Your task to perform on an android device: turn off sleep mode Image 0: 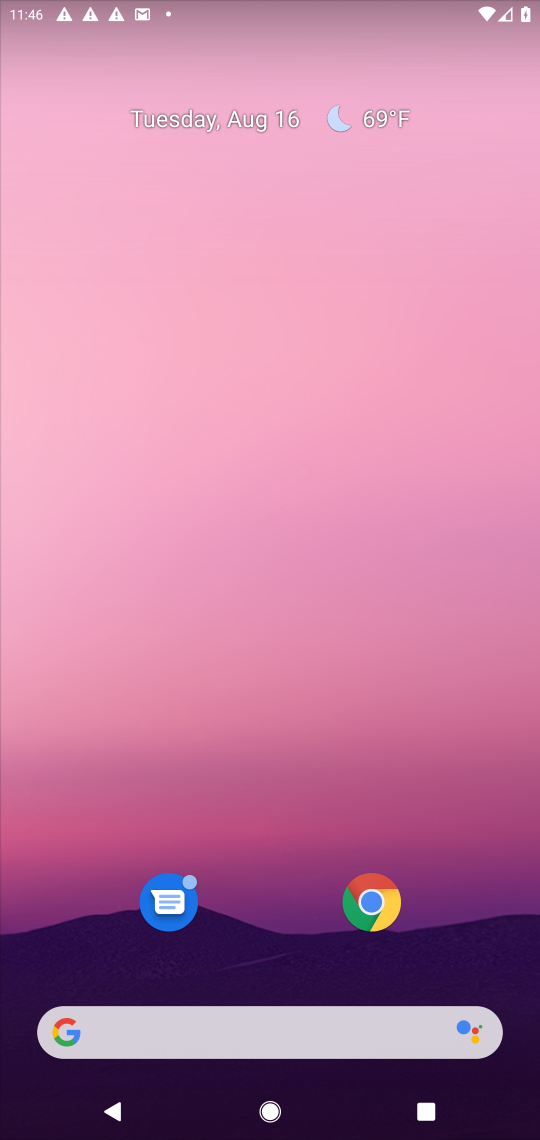
Step 0: drag from (267, 939) to (333, 161)
Your task to perform on an android device: turn off sleep mode Image 1: 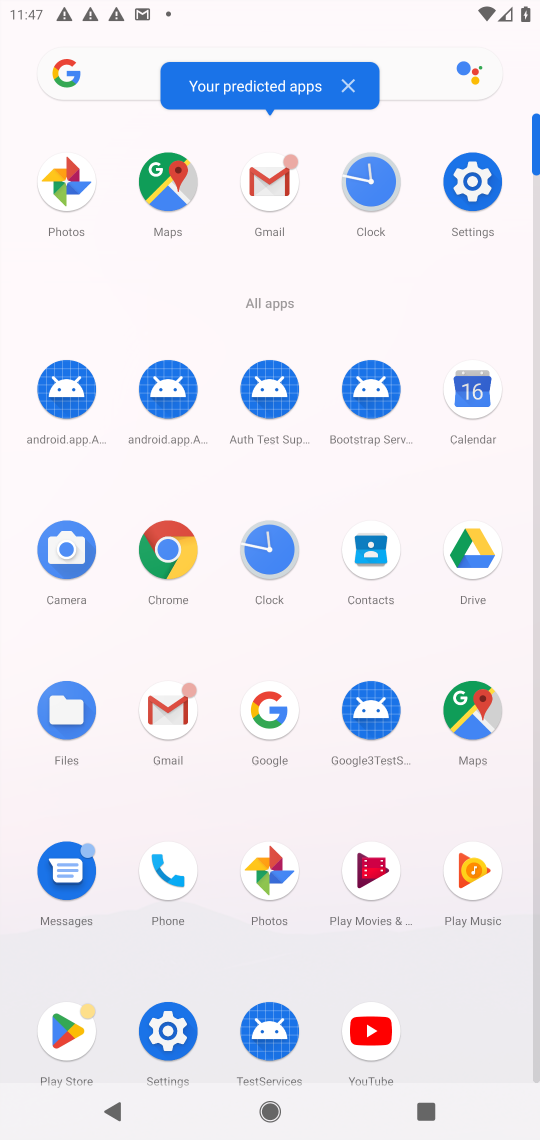
Step 1: click (188, 1014)
Your task to perform on an android device: turn off sleep mode Image 2: 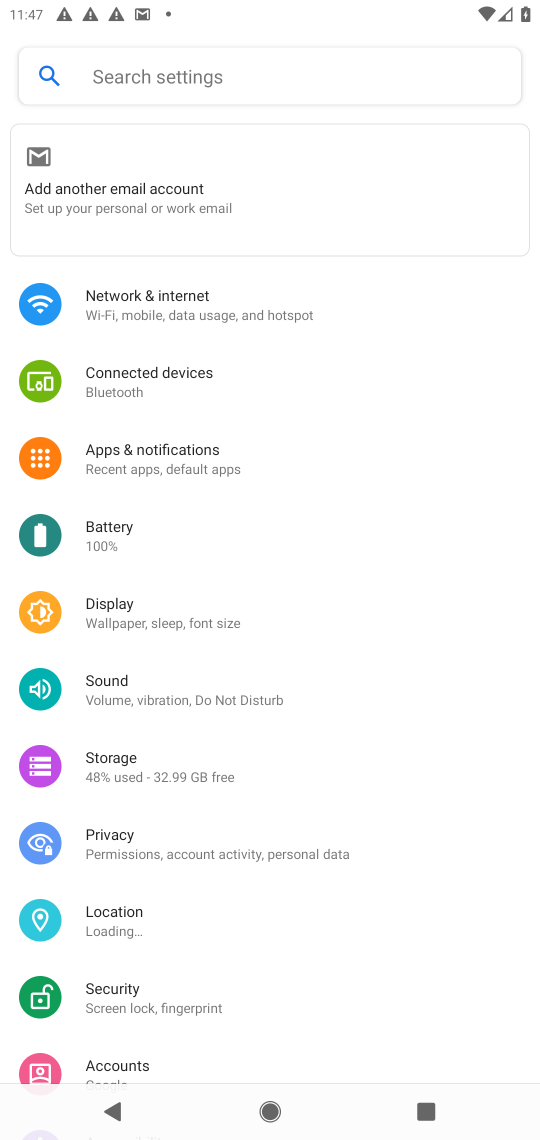
Step 2: click (268, 71)
Your task to perform on an android device: turn off sleep mode Image 3: 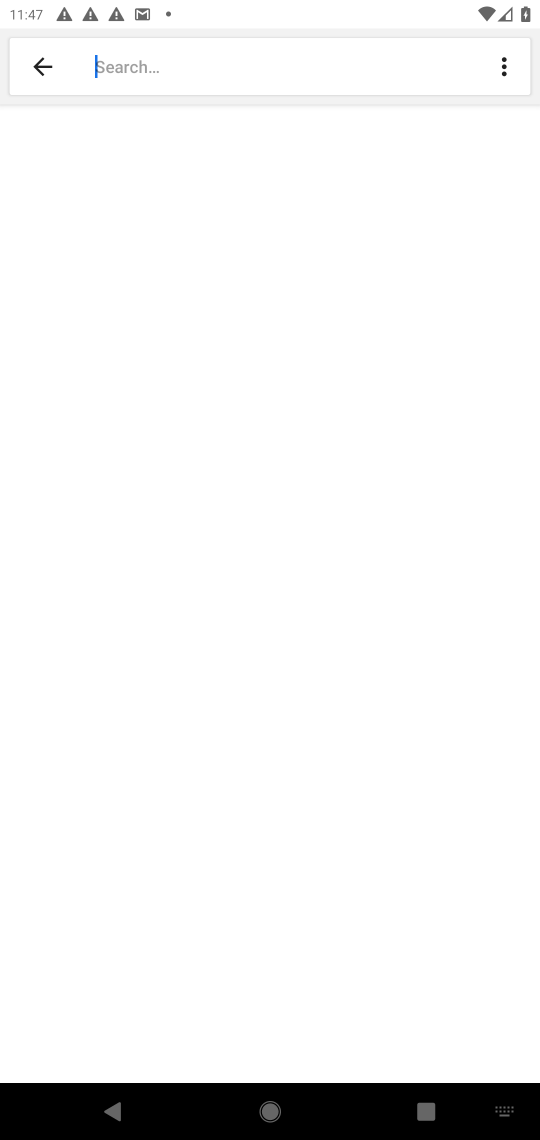
Step 3: type "sleep mode"
Your task to perform on an android device: turn off sleep mode Image 4: 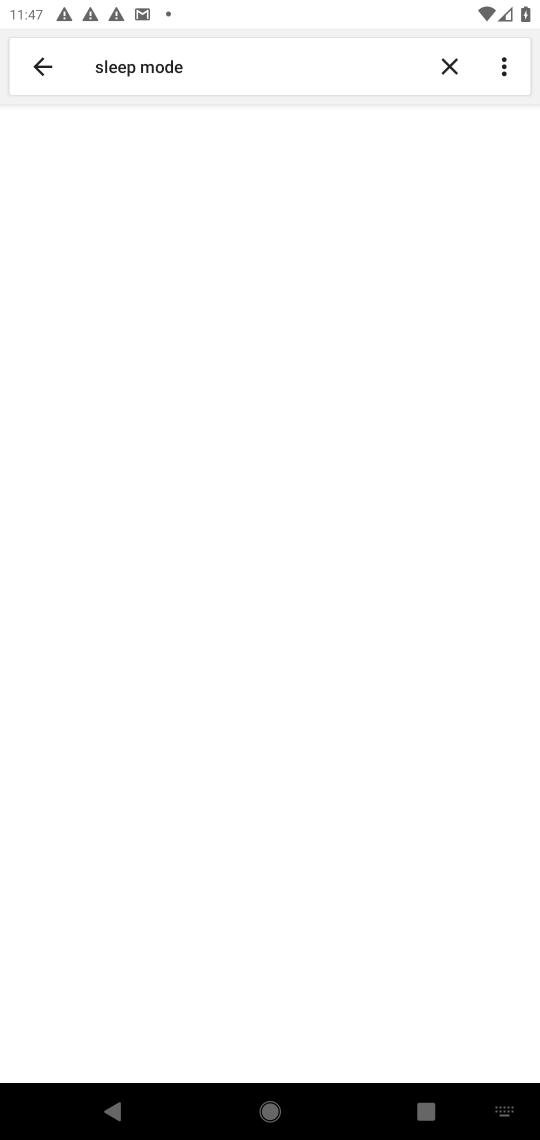
Step 4: click (346, 272)
Your task to perform on an android device: turn off sleep mode Image 5: 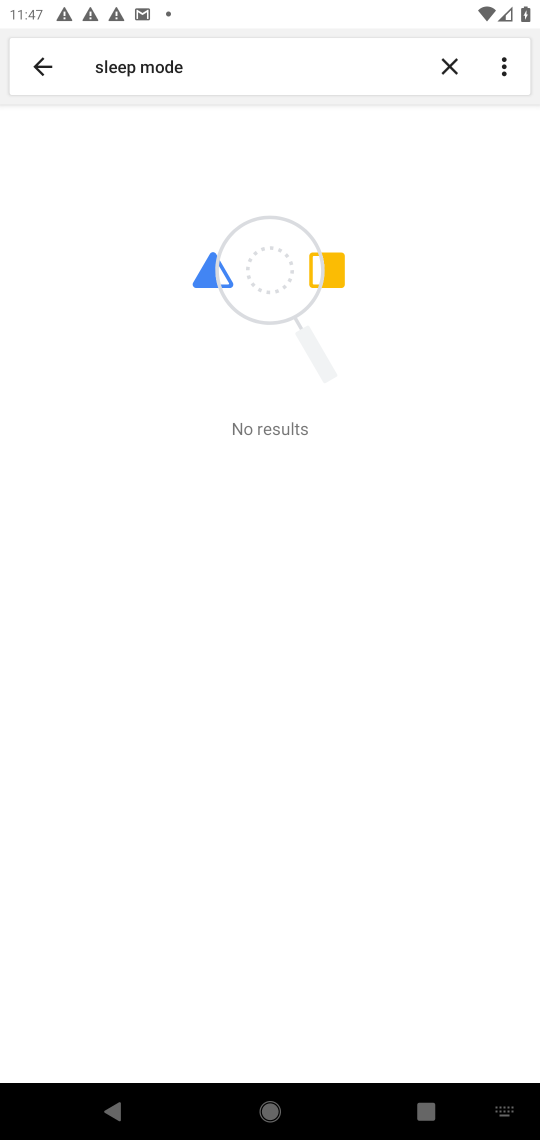
Step 5: task complete